Your task to perform on an android device: open a bookmark in the chrome app Image 0: 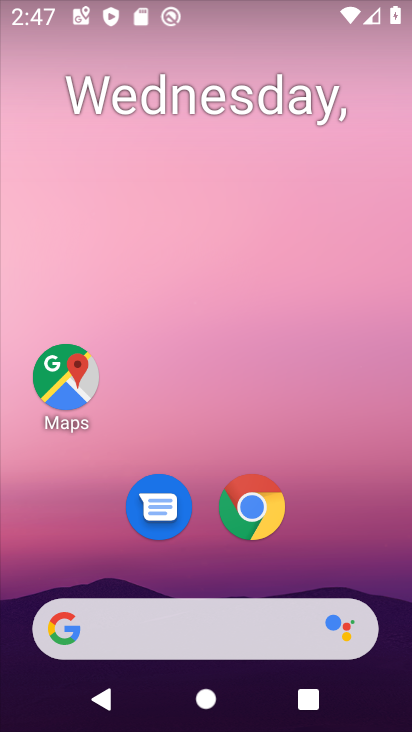
Step 0: click (264, 511)
Your task to perform on an android device: open a bookmark in the chrome app Image 1: 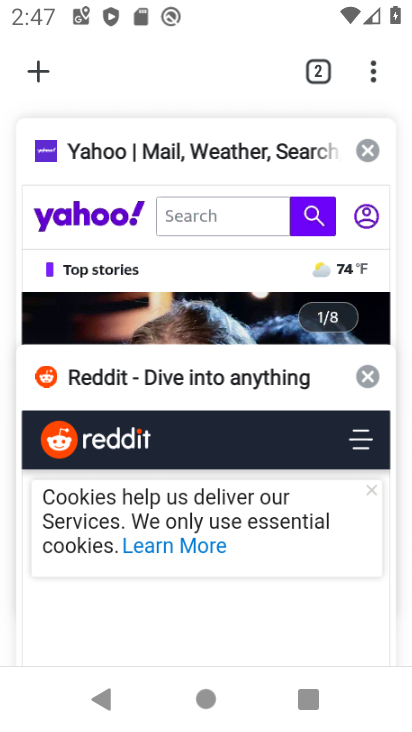
Step 1: click (378, 70)
Your task to perform on an android device: open a bookmark in the chrome app Image 2: 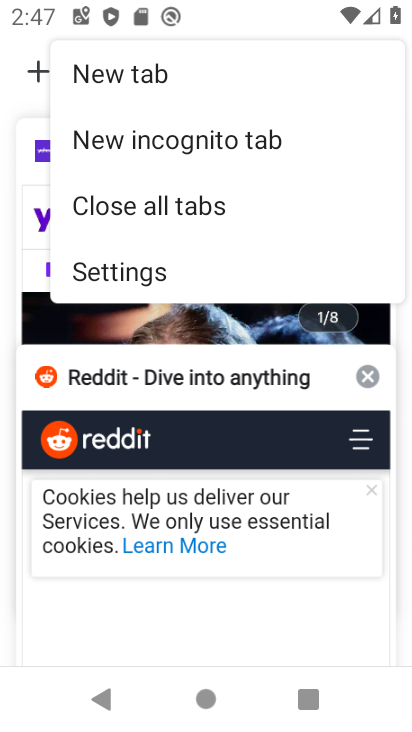
Step 2: click (153, 263)
Your task to perform on an android device: open a bookmark in the chrome app Image 3: 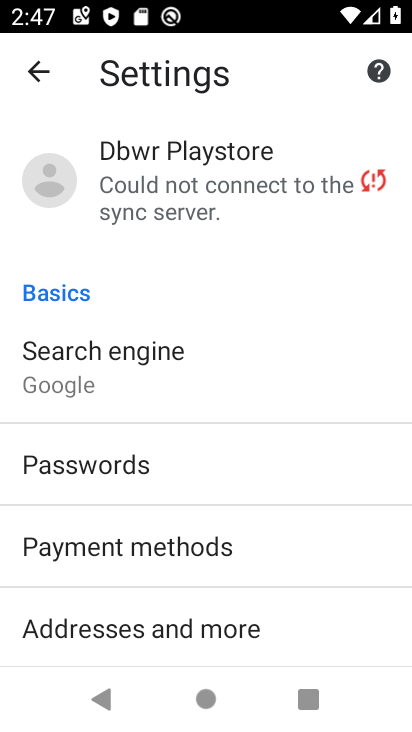
Step 3: press back button
Your task to perform on an android device: open a bookmark in the chrome app Image 4: 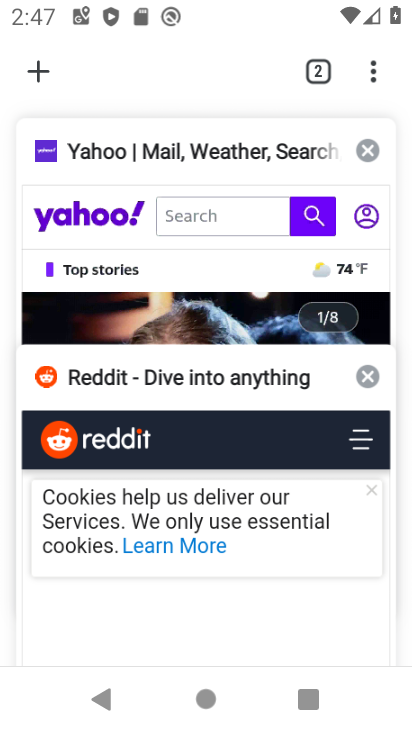
Step 4: click (33, 86)
Your task to perform on an android device: open a bookmark in the chrome app Image 5: 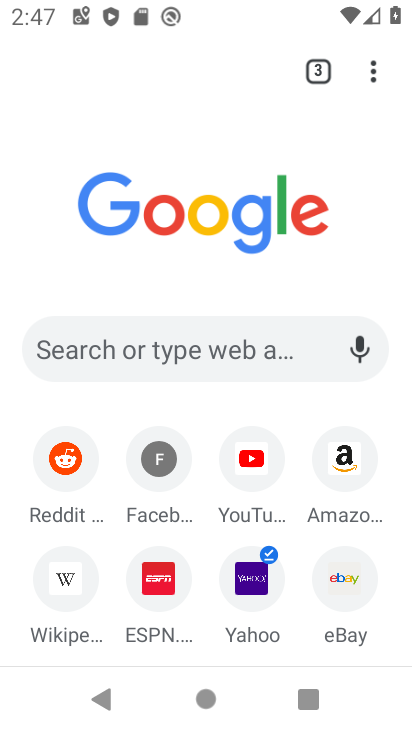
Step 5: click (361, 68)
Your task to perform on an android device: open a bookmark in the chrome app Image 6: 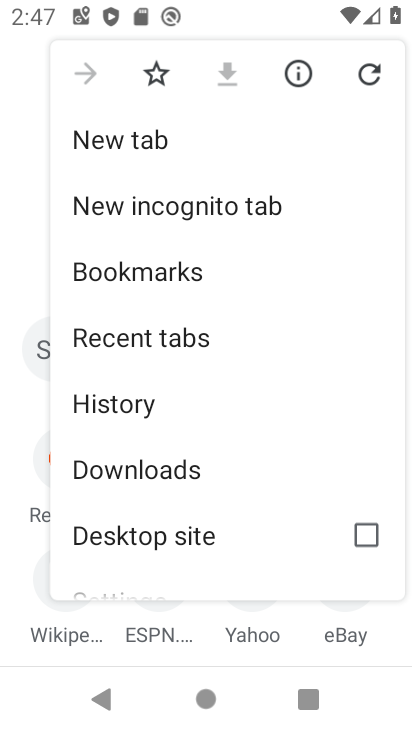
Step 6: click (223, 265)
Your task to perform on an android device: open a bookmark in the chrome app Image 7: 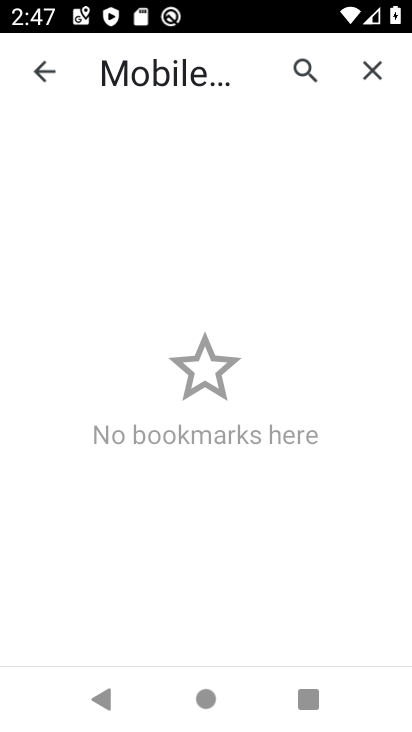
Step 7: task complete